Your task to perform on an android device: empty trash in the gmail app Image 0: 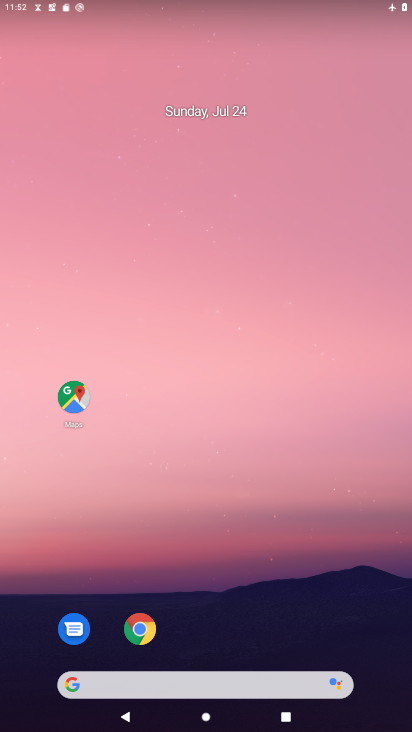
Step 0: drag from (203, 639) to (269, 169)
Your task to perform on an android device: empty trash in the gmail app Image 1: 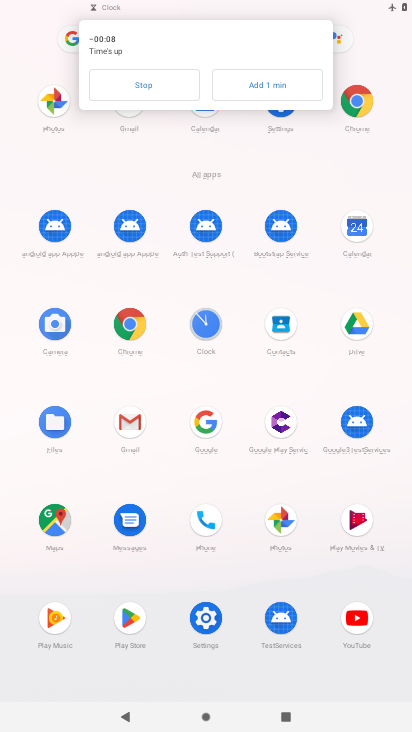
Step 1: click (159, 85)
Your task to perform on an android device: empty trash in the gmail app Image 2: 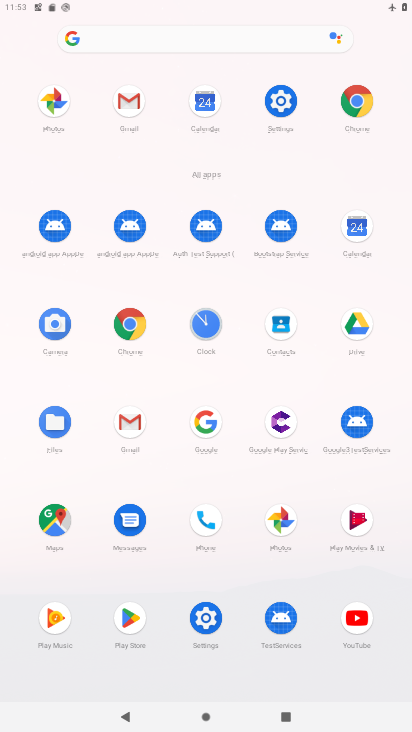
Step 2: click (129, 426)
Your task to perform on an android device: empty trash in the gmail app Image 3: 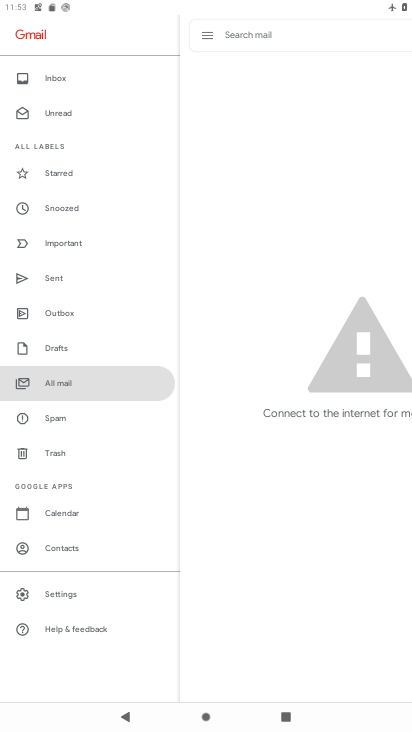
Step 3: click (67, 456)
Your task to perform on an android device: empty trash in the gmail app Image 4: 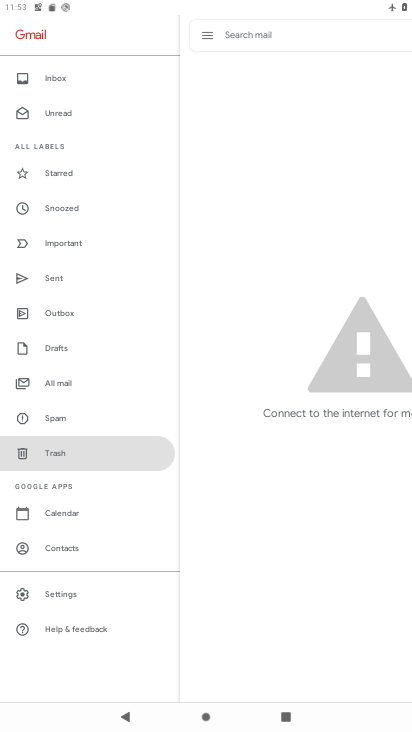
Step 4: task complete